Your task to perform on an android device: Do I have any events tomorrow? Image 0: 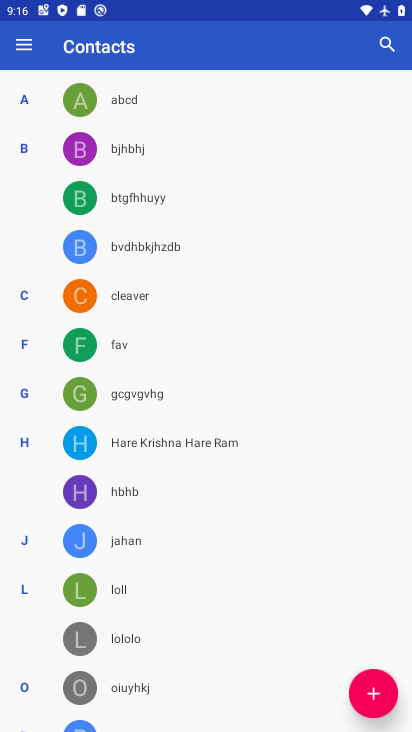
Step 0: press home button
Your task to perform on an android device: Do I have any events tomorrow? Image 1: 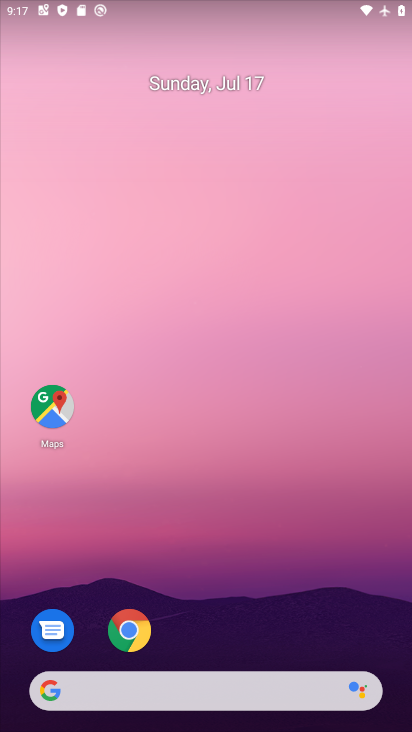
Step 1: drag from (259, 633) to (241, 31)
Your task to perform on an android device: Do I have any events tomorrow? Image 2: 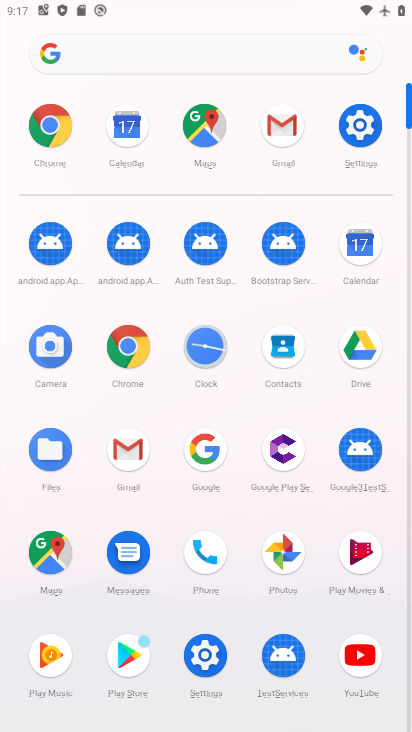
Step 2: click (134, 147)
Your task to perform on an android device: Do I have any events tomorrow? Image 3: 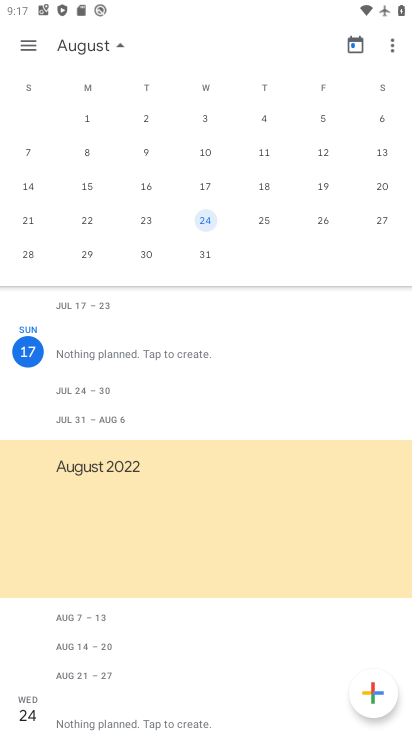
Step 3: task complete